Your task to perform on an android device: What's a good restaurant in Atlanta? Image 0: 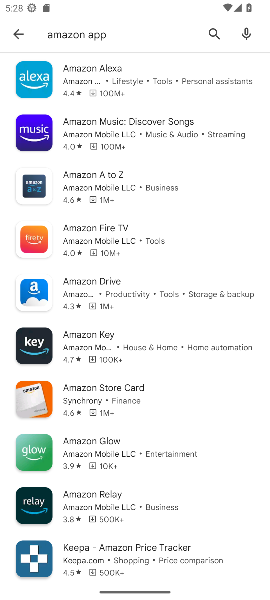
Step 0: press home button
Your task to perform on an android device: What's a good restaurant in Atlanta? Image 1: 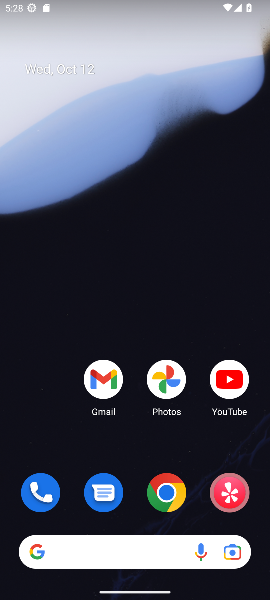
Step 1: click (169, 496)
Your task to perform on an android device: What's a good restaurant in Atlanta? Image 2: 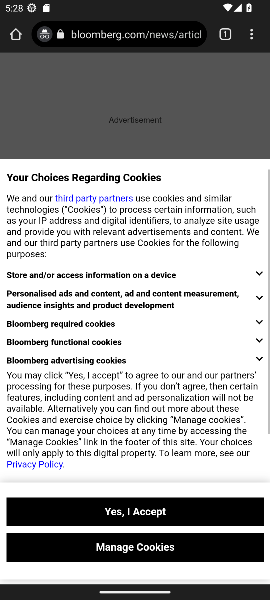
Step 2: click (94, 37)
Your task to perform on an android device: What's a good restaurant in Atlanta? Image 3: 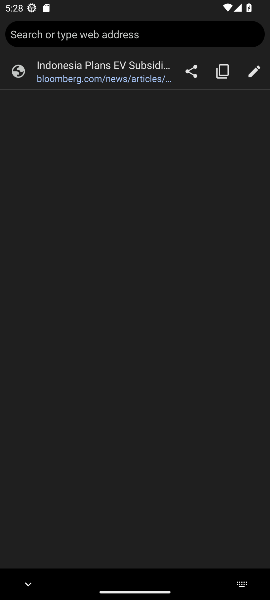
Step 3: type "a good restaurant in Atlanta"
Your task to perform on an android device: What's a good restaurant in Atlanta? Image 4: 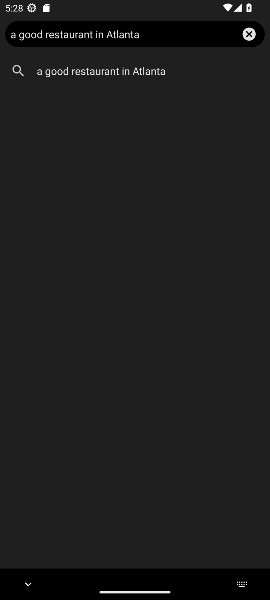
Step 4: click (72, 72)
Your task to perform on an android device: What's a good restaurant in Atlanta? Image 5: 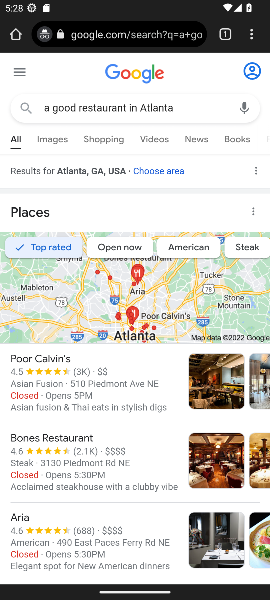
Step 5: task complete